Your task to perform on an android device: Do I have any events this weekend? Image 0: 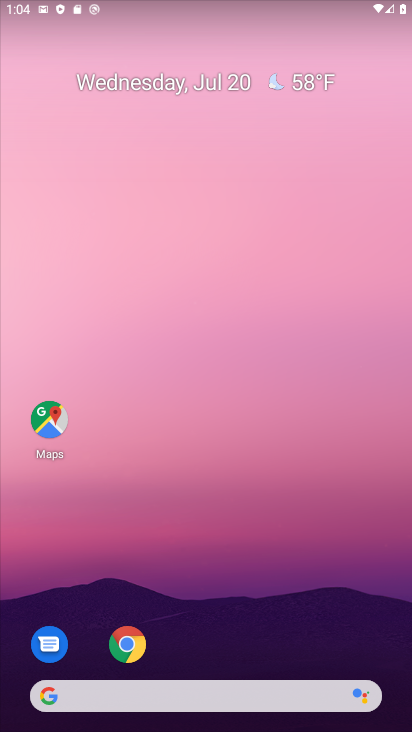
Step 0: drag from (208, 647) to (158, 62)
Your task to perform on an android device: Do I have any events this weekend? Image 1: 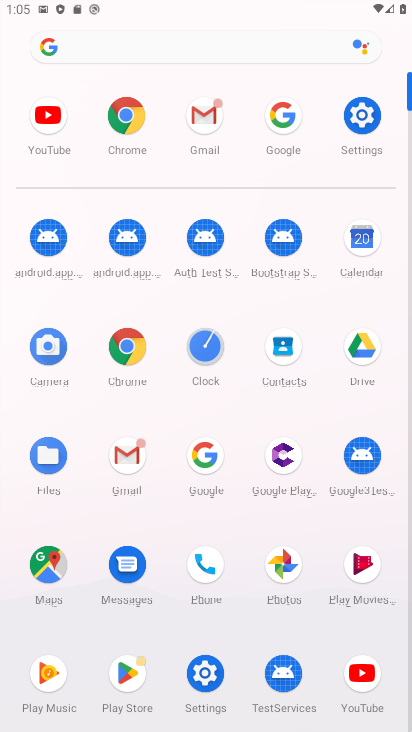
Step 1: click (362, 236)
Your task to perform on an android device: Do I have any events this weekend? Image 2: 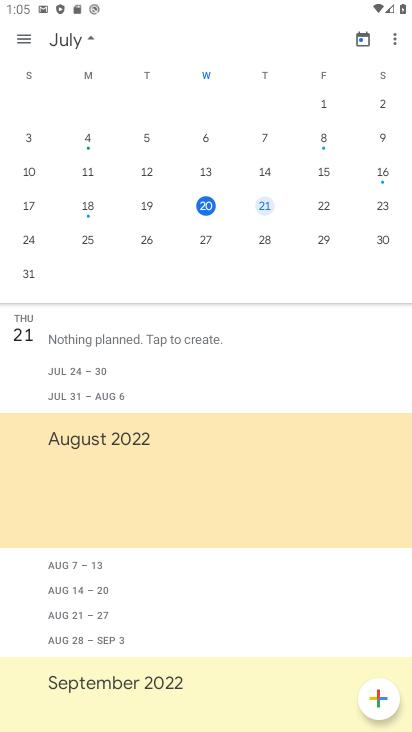
Step 2: click (325, 205)
Your task to perform on an android device: Do I have any events this weekend? Image 3: 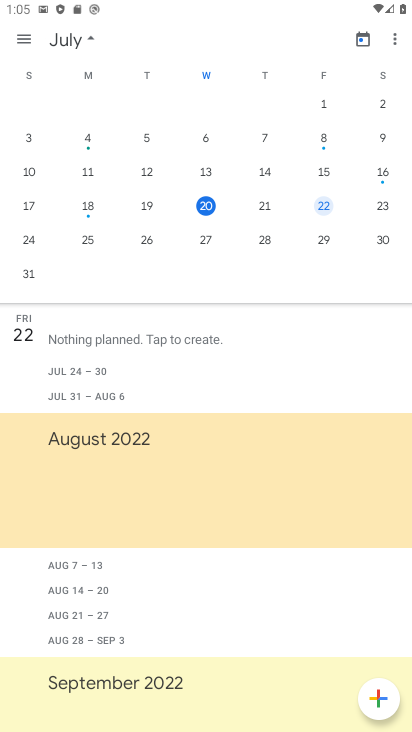
Step 3: task complete